Your task to perform on an android device: Open the phone app and click the voicemail tab. Image 0: 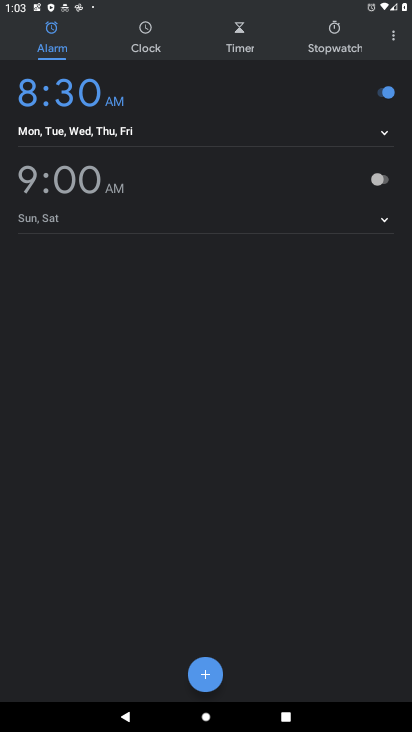
Step 0: press home button
Your task to perform on an android device: Open the phone app and click the voicemail tab. Image 1: 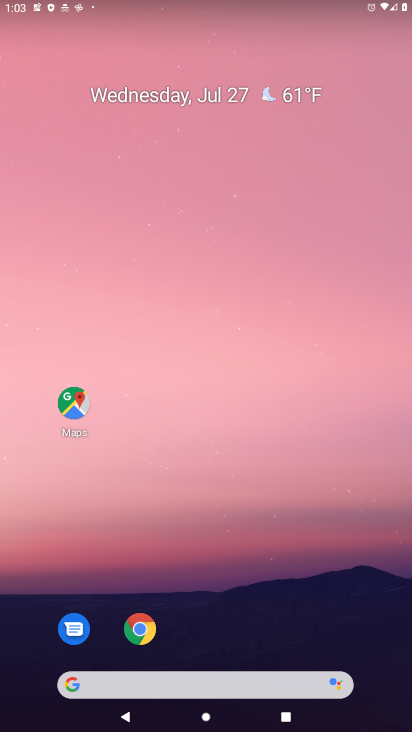
Step 1: drag from (331, 638) to (267, 168)
Your task to perform on an android device: Open the phone app and click the voicemail tab. Image 2: 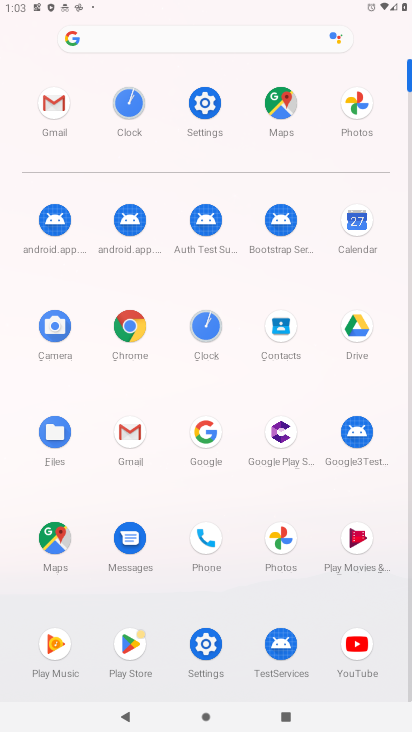
Step 2: click (203, 542)
Your task to perform on an android device: Open the phone app and click the voicemail tab. Image 3: 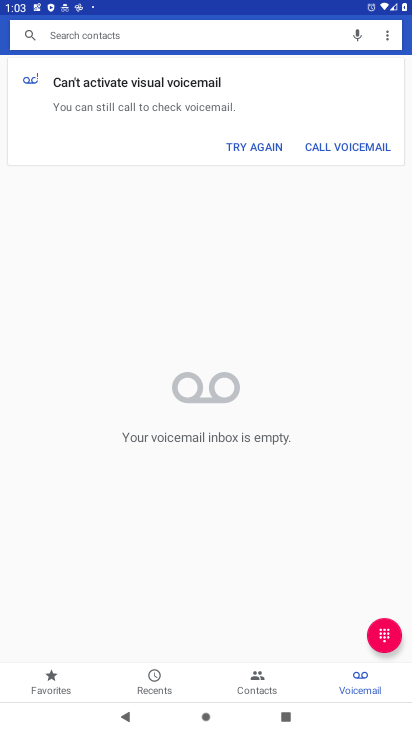
Step 3: task complete